Your task to perform on an android device: Set the phone to "Do not disturb". Image 0: 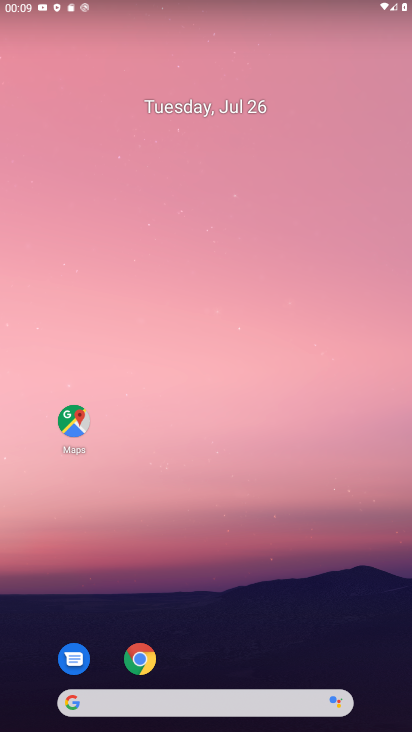
Step 0: press home button
Your task to perform on an android device: Set the phone to "Do not disturb". Image 1: 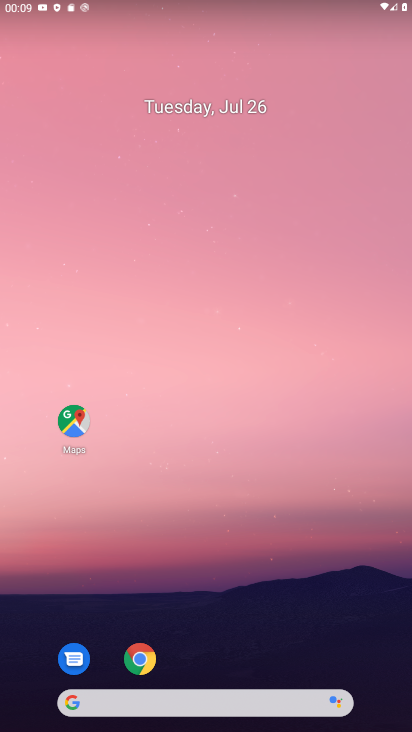
Step 1: drag from (400, 4) to (311, 319)
Your task to perform on an android device: Set the phone to "Do not disturb". Image 2: 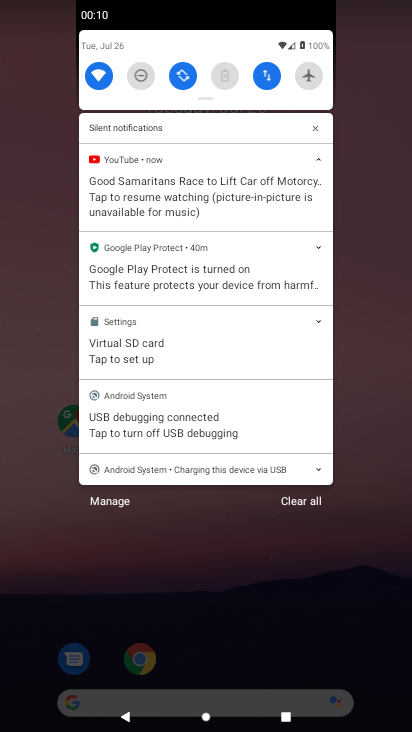
Step 2: click (137, 72)
Your task to perform on an android device: Set the phone to "Do not disturb". Image 3: 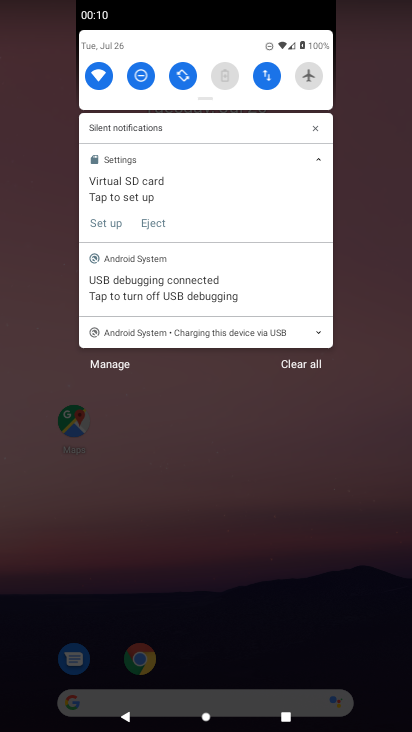
Step 3: task complete